Your task to perform on an android device: change keyboard looks Image 0: 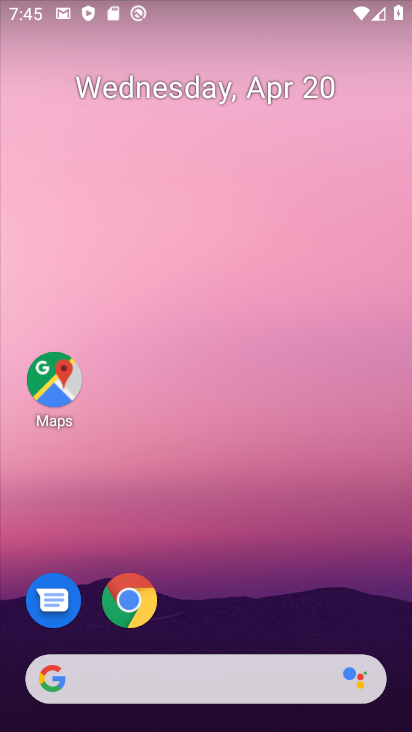
Step 0: drag from (211, 725) to (243, 99)
Your task to perform on an android device: change keyboard looks Image 1: 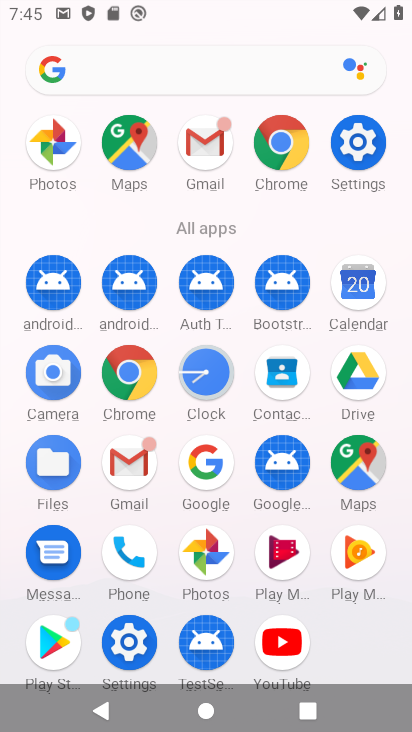
Step 1: click (363, 139)
Your task to perform on an android device: change keyboard looks Image 2: 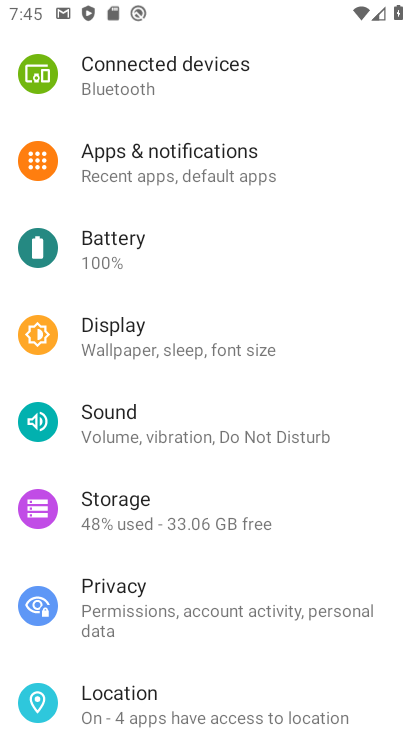
Step 2: drag from (173, 637) to (205, 160)
Your task to perform on an android device: change keyboard looks Image 3: 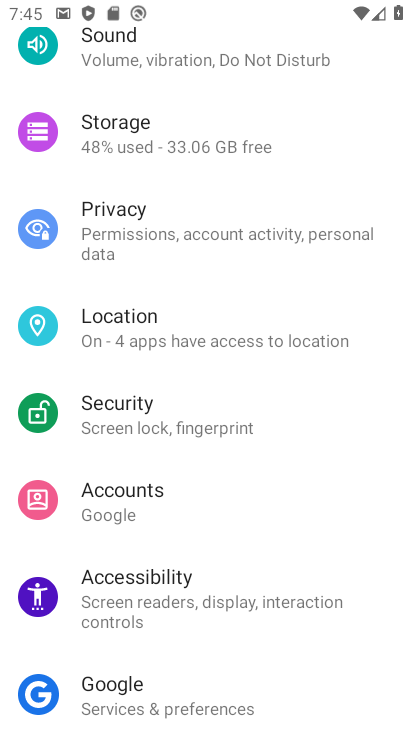
Step 3: drag from (151, 611) to (154, 180)
Your task to perform on an android device: change keyboard looks Image 4: 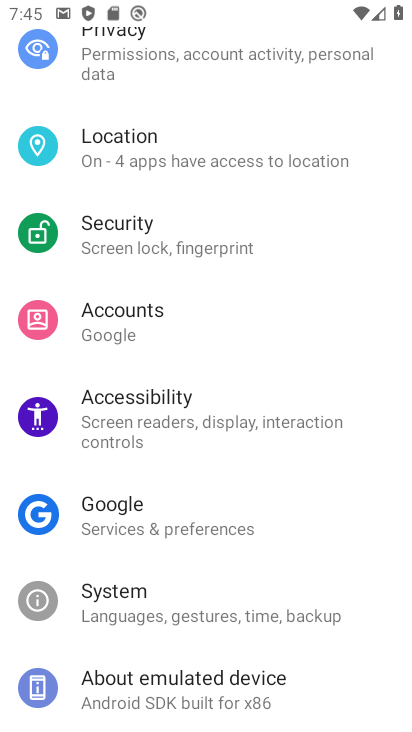
Step 4: click (106, 603)
Your task to perform on an android device: change keyboard looks Image 5: 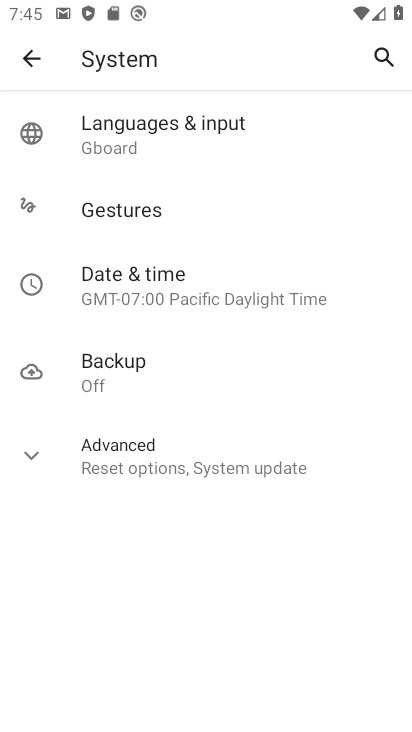
Step 5: click (119, 121)
Your task to perform on an android device: change keyboard looks Image 6: 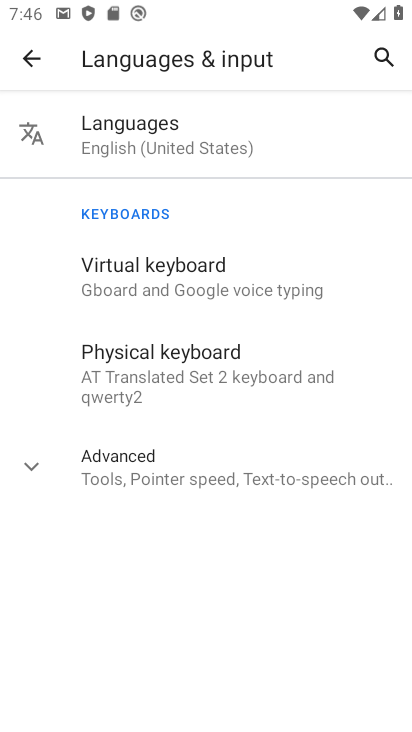
Step 6: click (162, 268)
Your task to perform on an android device: change keyboard looks Image 7: 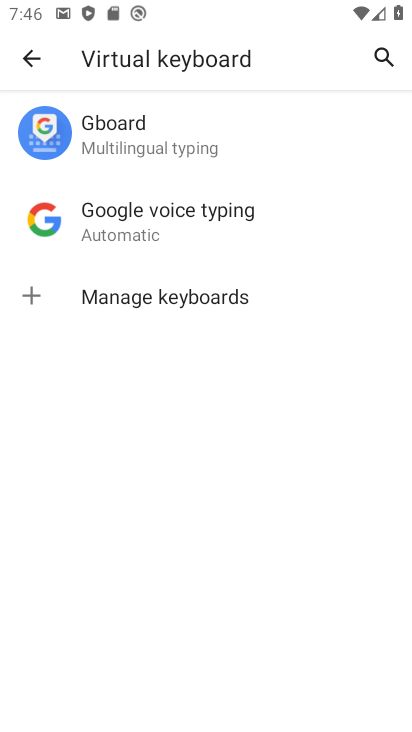
Step 7: click (101, 126)
Your task to perform on an android device: change keyboard looks Image 8: 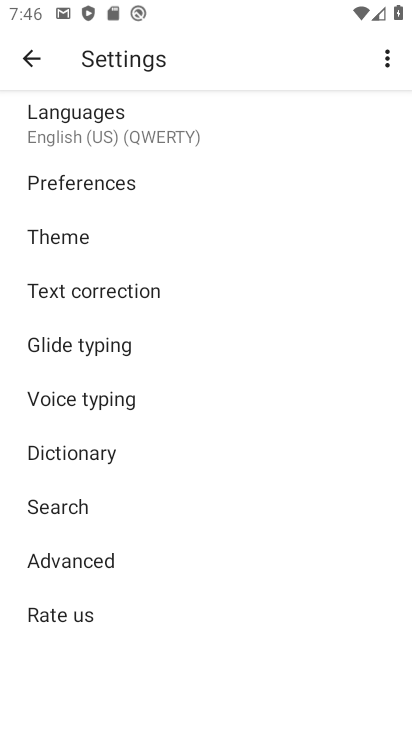
Step 8: click (56, 239)
Your task to perform on an android device: change keyboard looks Image 9: 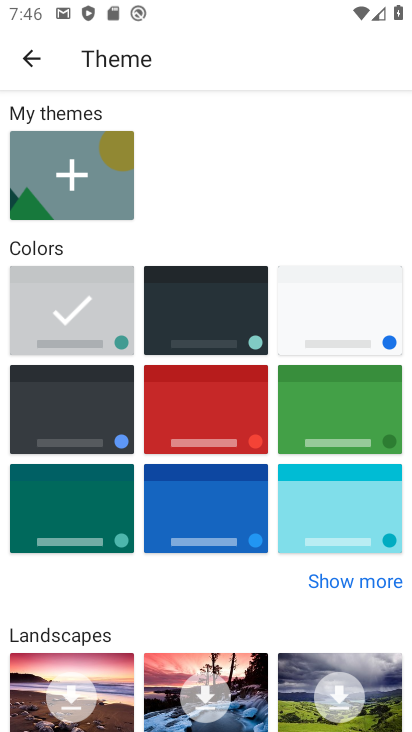
Step 9: click (195, 321)
Your task to perform on an android device: change keyboard looks Image 10: 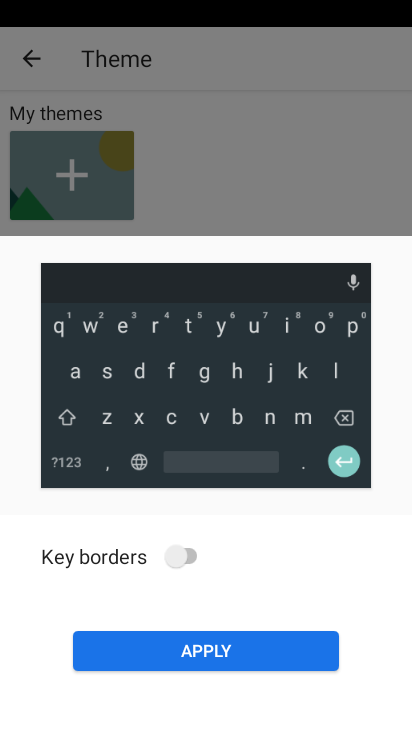
Step 10: click (185, 551)
Your task to perform on an android device: change keyboard looks Image 11: 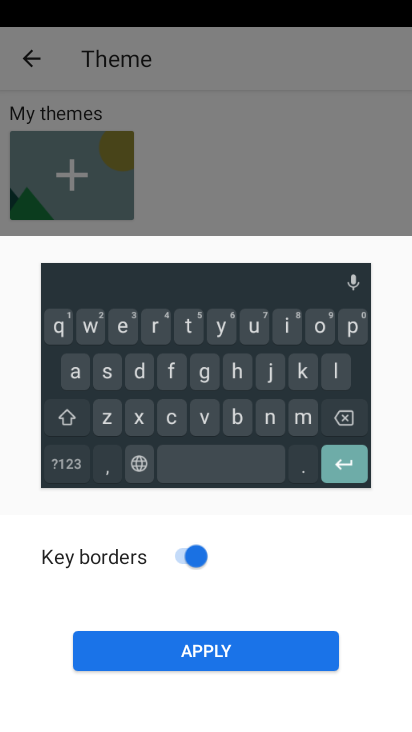
Step 11: click (219, 647)
Your task to perform on an android device: change keyboard looks Image 12: 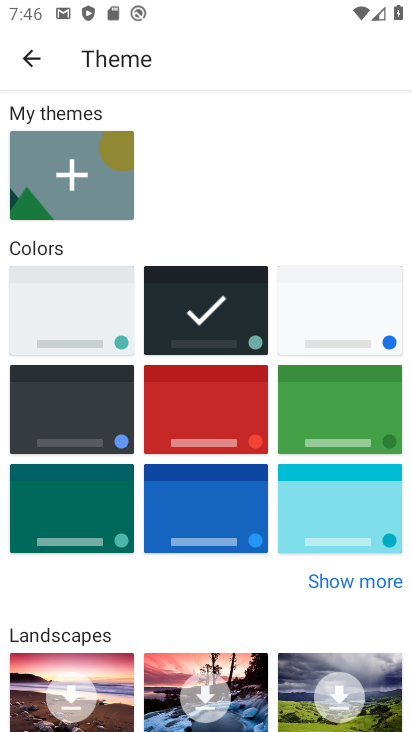
Step 12: task complete